Your task to perform on an android device: turn off picture-in-picture Image 0: 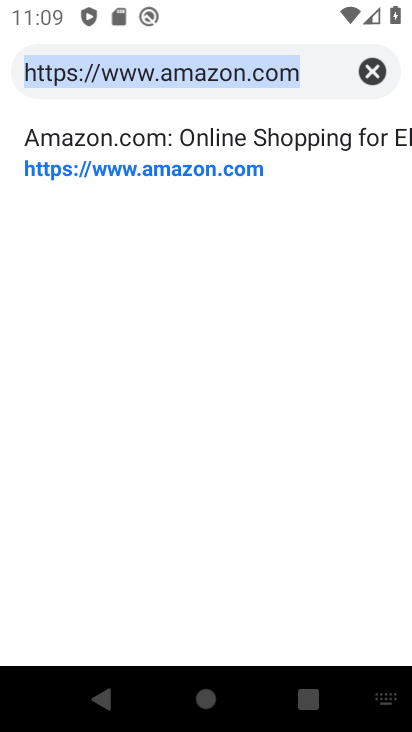
Step 0: press home button
Your task to perform on an android device: turn off picture-in-picture Image 1: 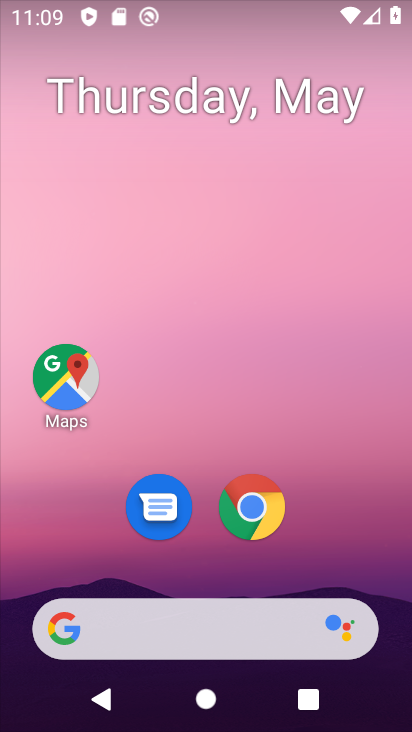
Step 1: drag from (236, 583) to (270, 26)
Your task to perform on an android device: turn off picture-in-picture Image 2: 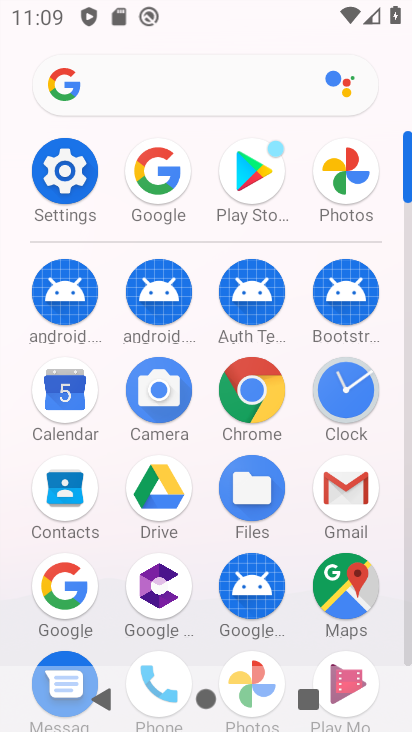
Step 2: click (91, 212)
Your task to perform on an android device: turn off picture-in-picture Image 3: 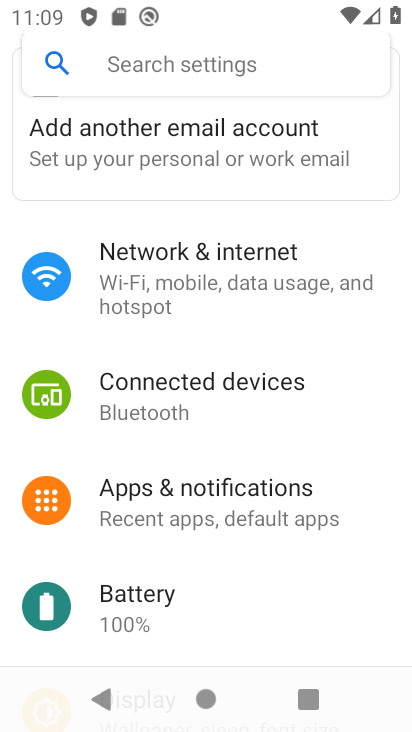
Step 3: click (140, 488)
Your task to perform on an android device: turn off picture-in-picture Image 4: 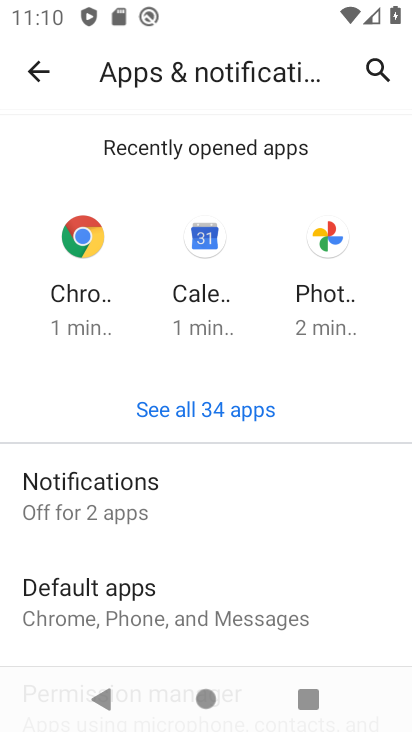
Step 4: click (178, 511)
Your task to perform on an android device: turn off picture-in-picture Image 5: 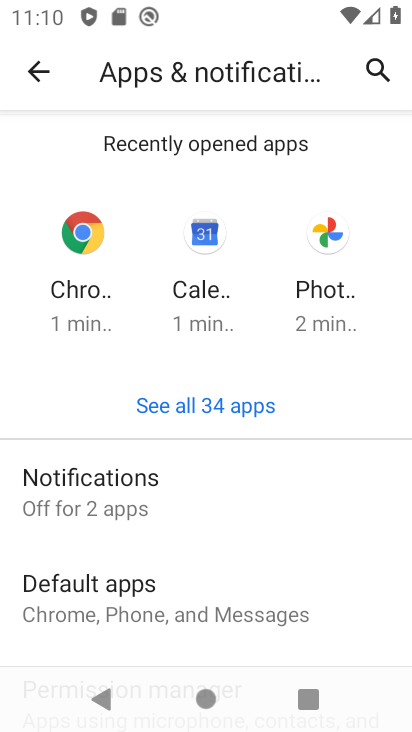
Step 5: drag from (239, 581) to (283, 281)
Your task to perform on an android device: turn off picture-in-picture Image 6: 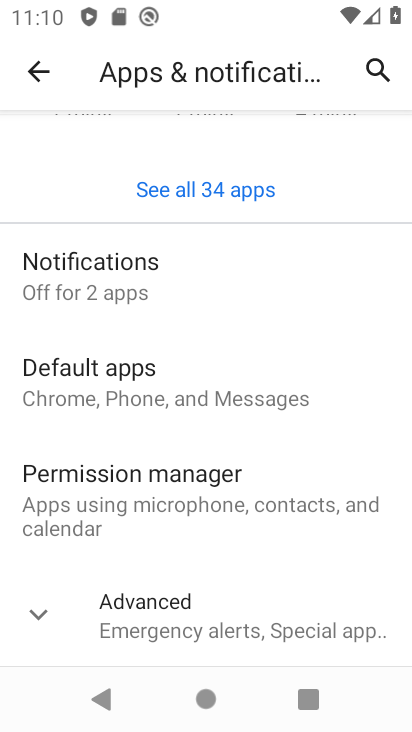
Step 6: click (95, 600)
Your task to perform on an android device: turn off picture-in-picture Image 7: 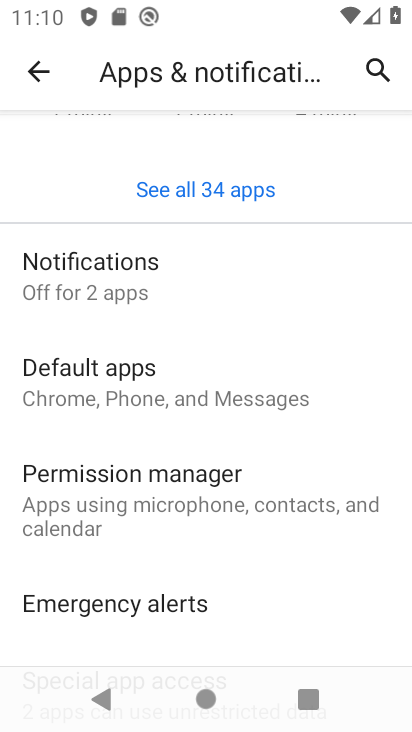
Step 7: drag from (193, 505) to (241, 95)
Your task to perform on an android device: turn off picture-in-picture Image 8: 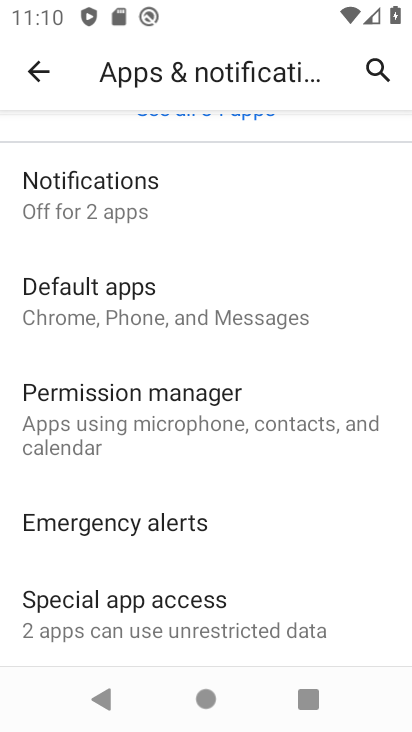
Step 8: drag from (159, 588) to (212, 192)
Your task to perform on an android device: turn off picture-in-picture Image 9: 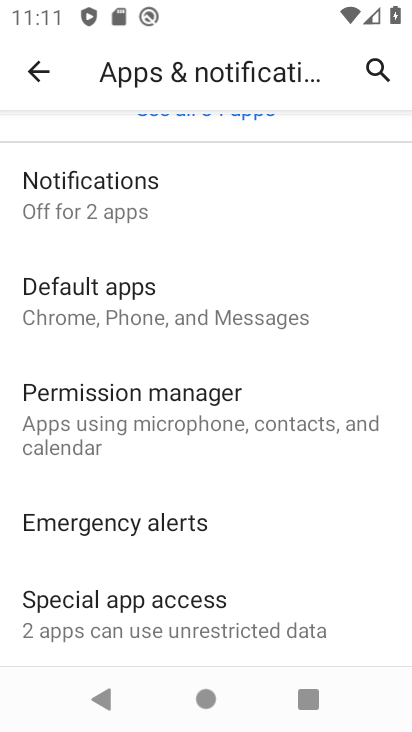
Step 9: click (242, 610)
Your task to perform on an android device: turn off picture-in-picture Image 10: 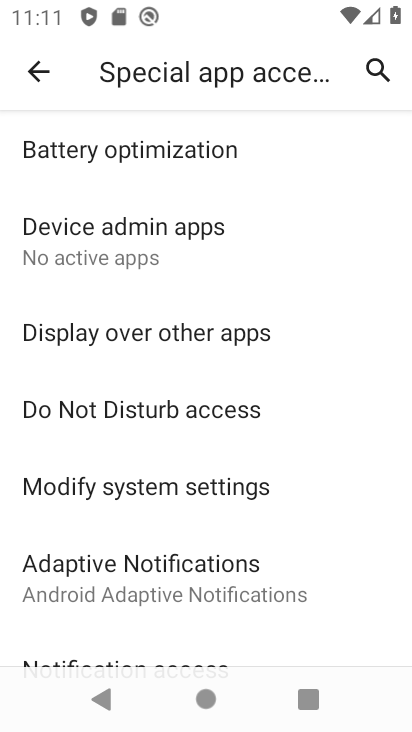
Step 10: drag from (264, 488) to (350, 37)
Your task to perform on an android device: turn off picture-in-picture Image 11: 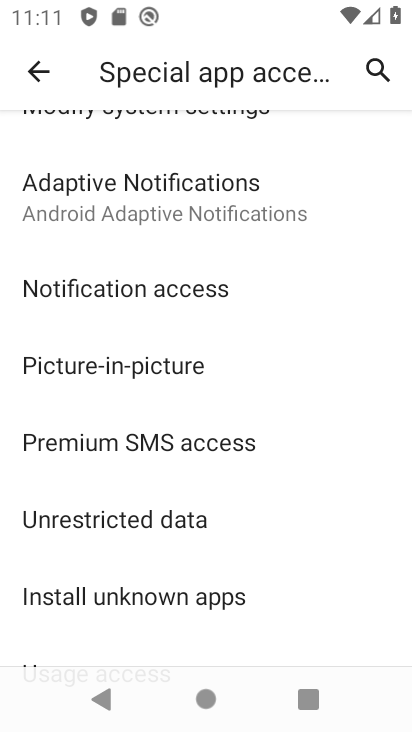
Step 11: click (209, 375)
Your task to perform on an android device: turn off picture-in-picture Image 12: 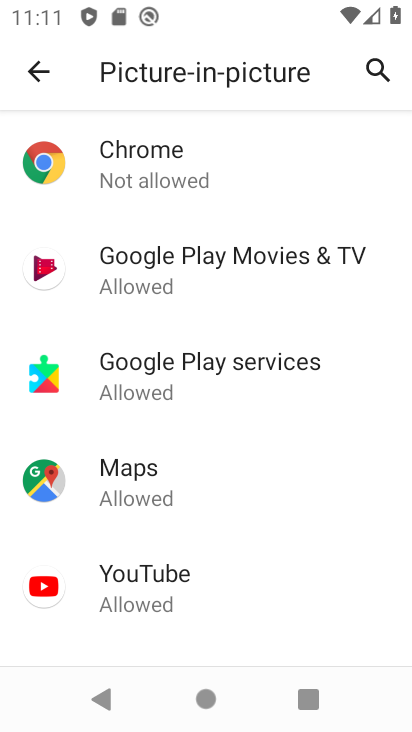
Step 12: drag from (232, 502) to (241, 126)
Your task to perform on an android device: turn off picture-in-picture Image 13: 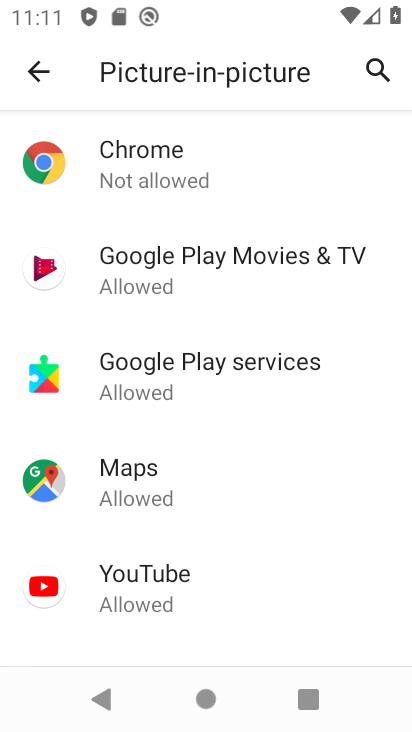
Step 13: drag from (210, 311) to (112, 640)
Your task to perform on an android device: turn off picture-in-picture Image 14: 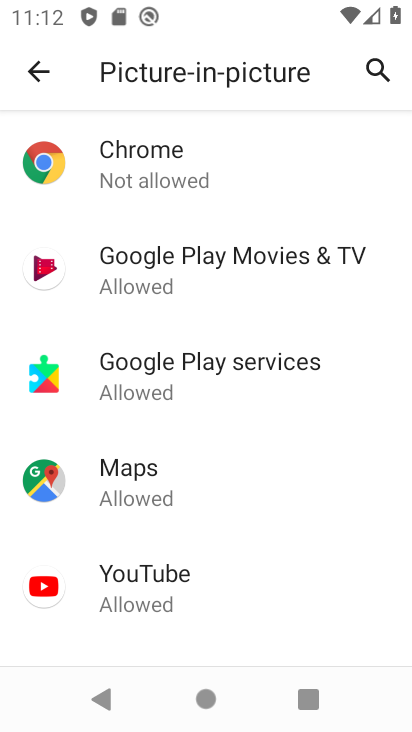
Step 14: click (215, 166)
Your task to perform on an android device: turn off picture-in-picture Image 15: 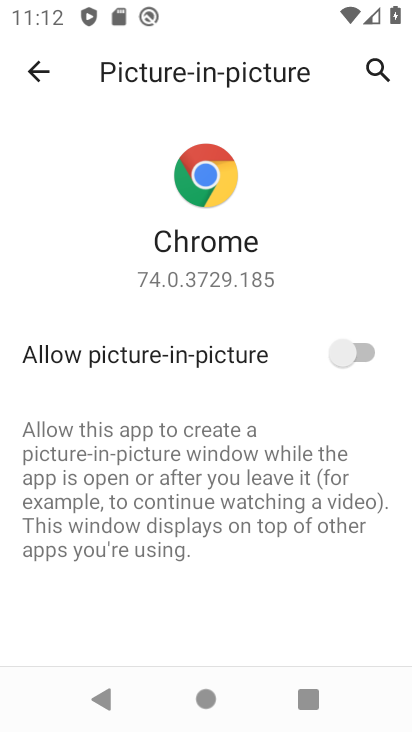
Step 15: task complete